Your task to perform on an android device: open app "Flipkart Online Shopping App" (install if not already installed) and go to login screen Image 0: 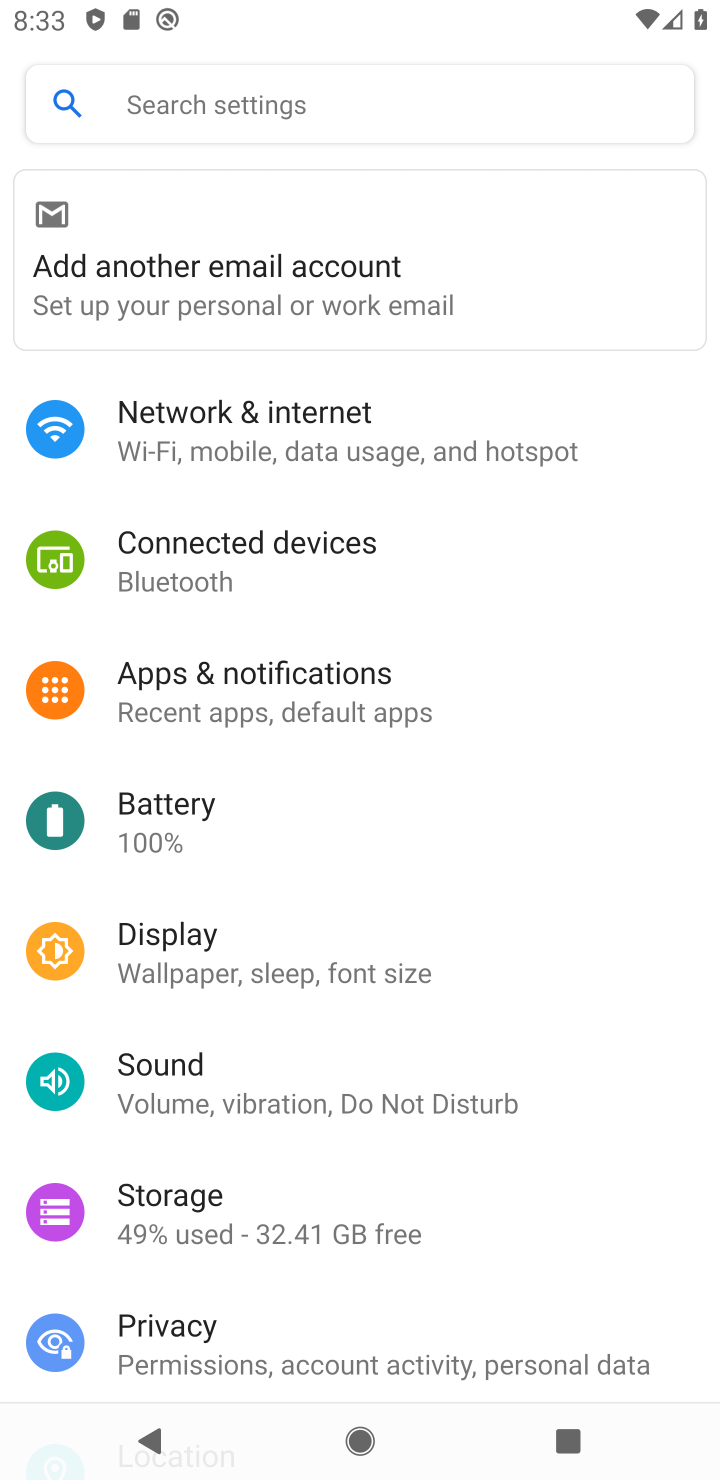
Step 0: press back button
Your task to perform on an android device: open app "Flipkart Online Shopping App" (install if not already installed) and go to login screen Image 1: 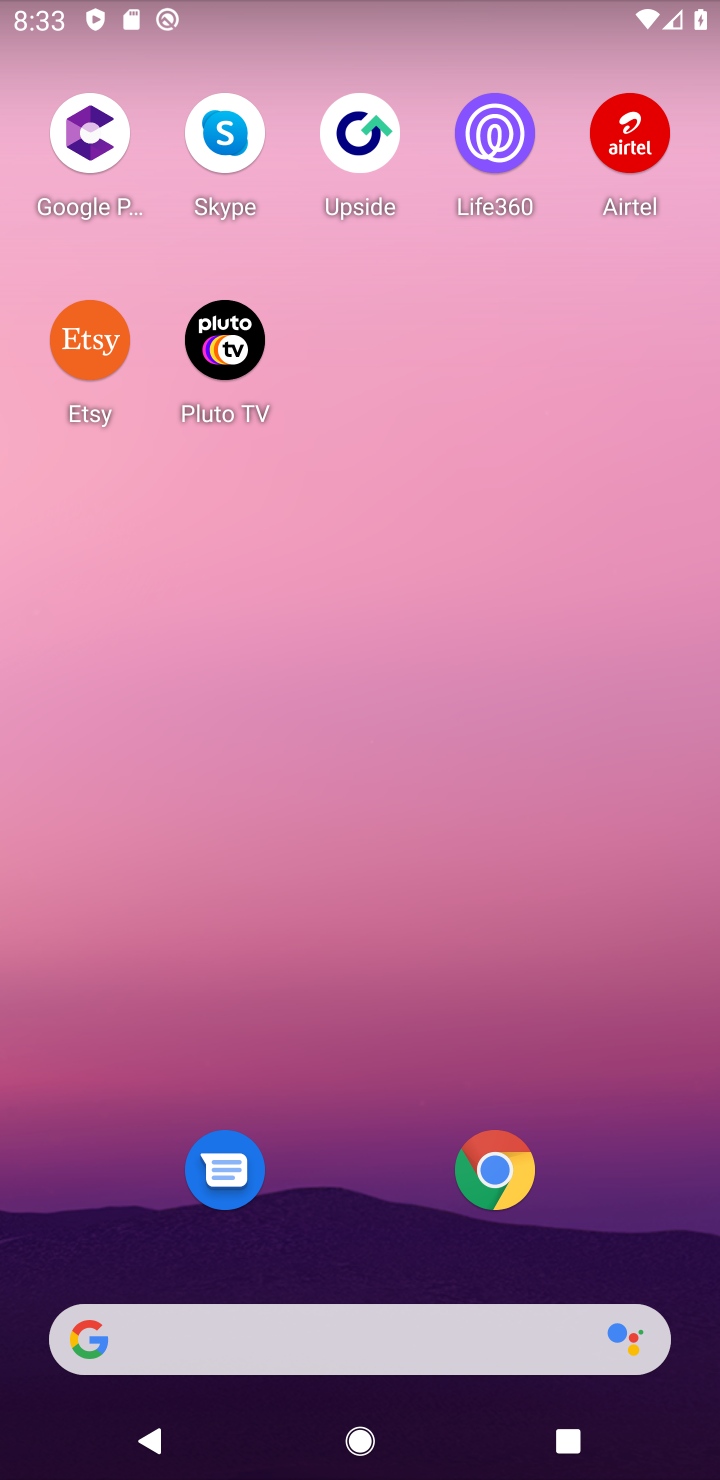
Step 1: drag from (391, 945) to (596, 180)
Your task to perform on an android device: open app "Flipkart Online Shopping App" (install if not already installed) and go to login screen Image 2: 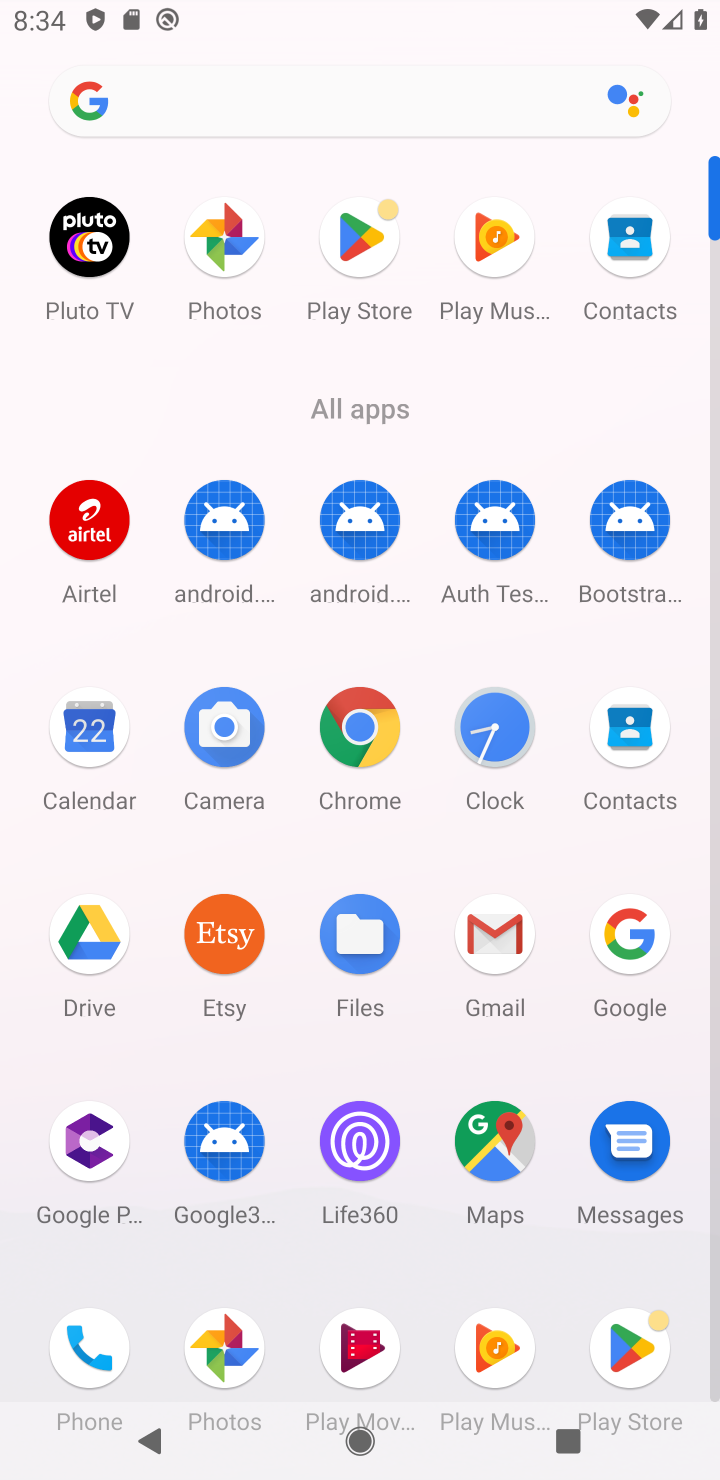
Step 2: click (367, 241)
Your task to perform on an android device: open app "Flipkart Online Shopping App" (install if not already installed) and go to login screen Image 3: 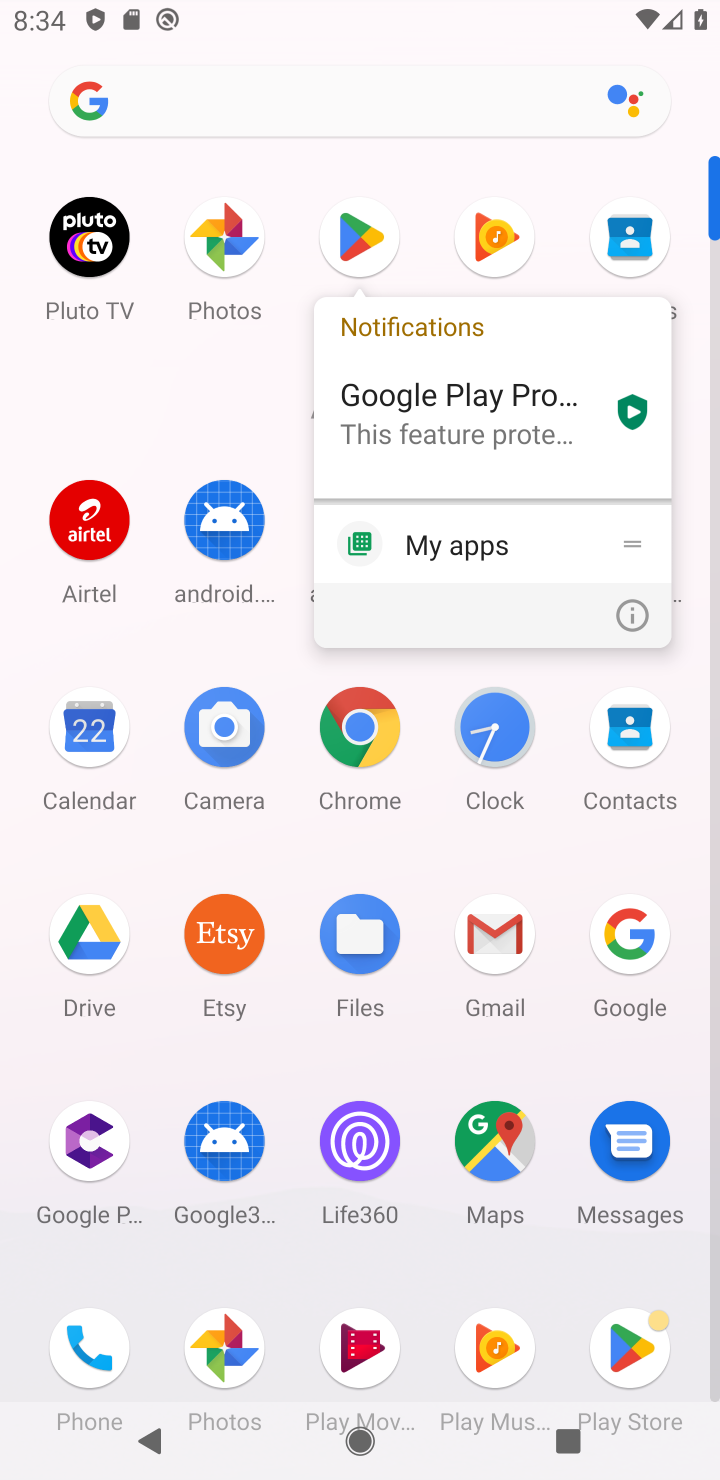
Step 3: click (363, 230)
Your task to perform on an android device: open app "Flipkart Online Shopping App" (install if not already installed) and go to login screen Image 4: 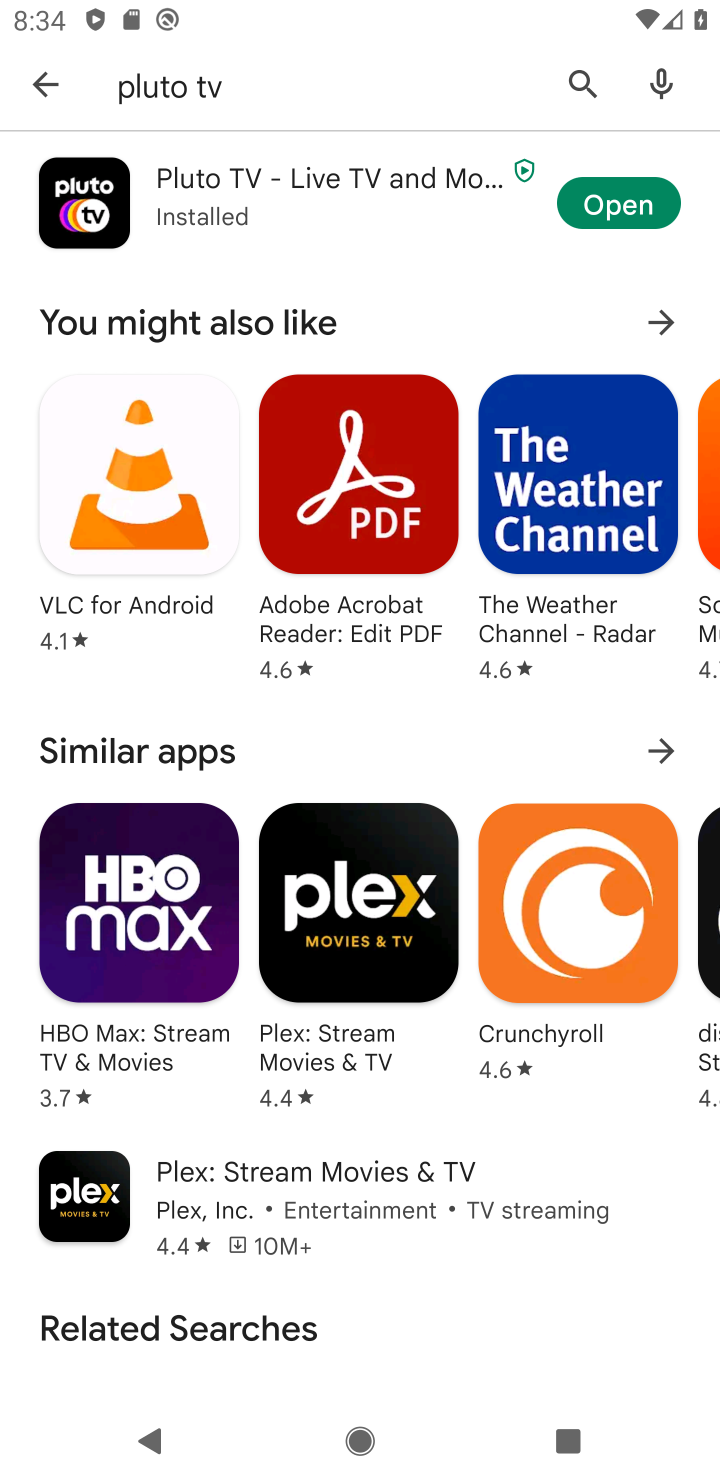
Step 4: click (361, 237)
Your task to perform on an android device: open app "Flipkart Online Shopping App" (install if not already installed) and go to login screen Image 5: 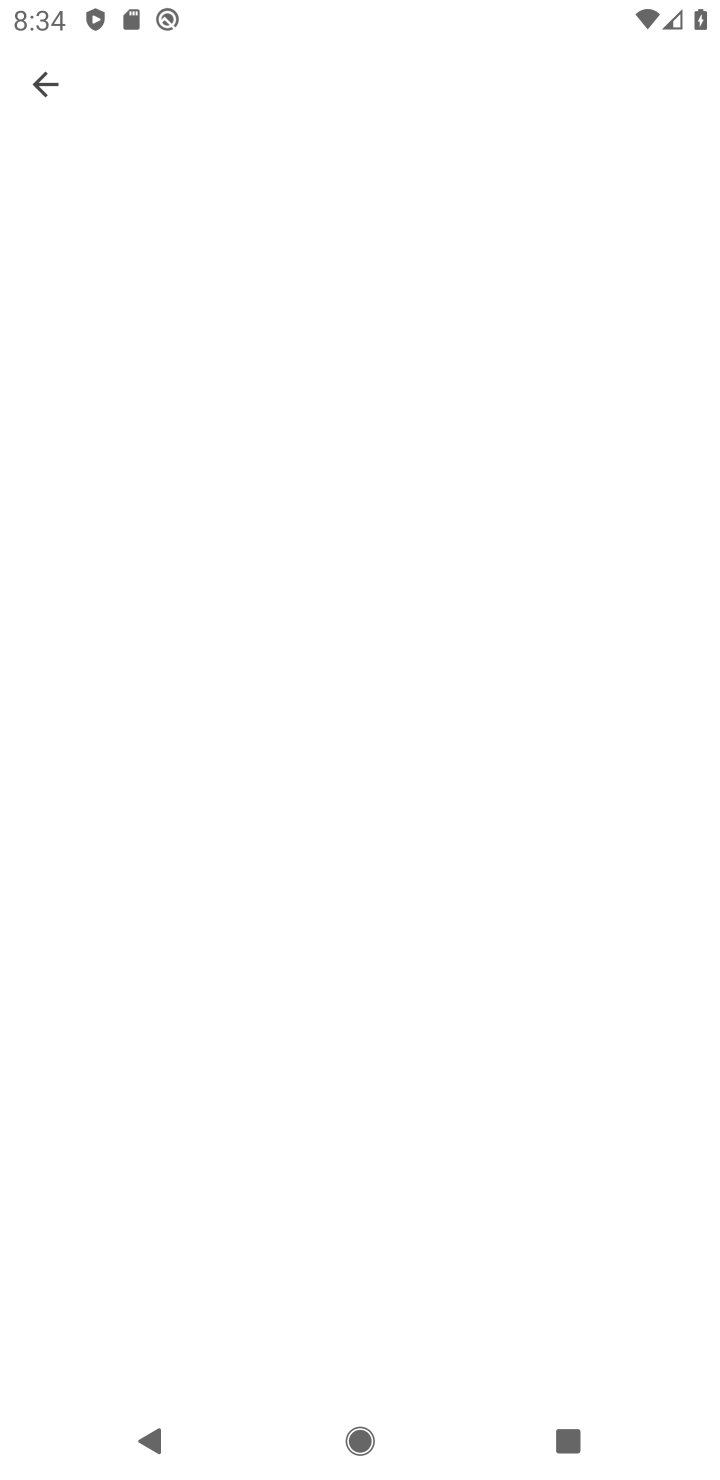
Step 5: click (575, 100)
Your task to perform on an android device: open app "Flipkart Online Shopping App" (install if not already installed) and go to login screen Image 6: 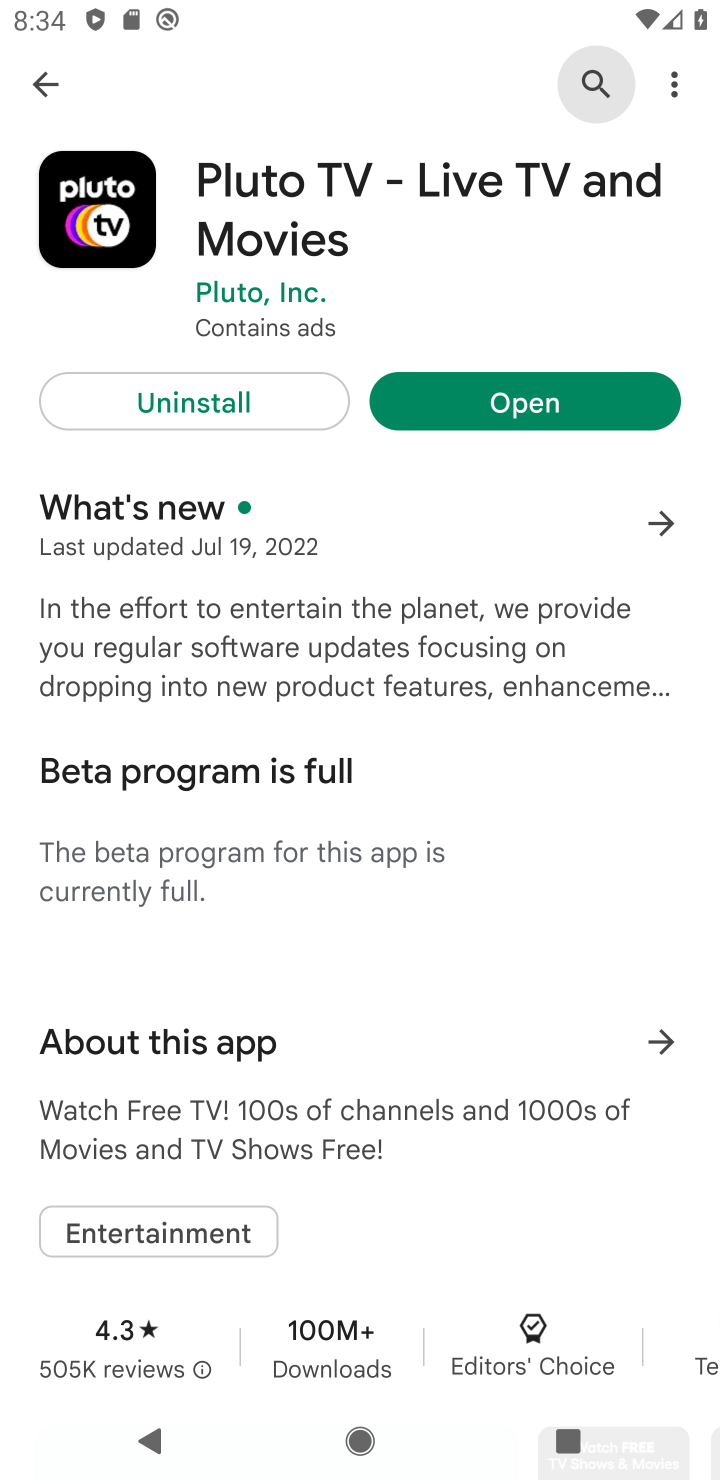
Step 6: click (601, 90)
Your task to perform on an android device: open app "Flipkart Online Shopping App" (install if not already installed) and go to login screen Image 7: 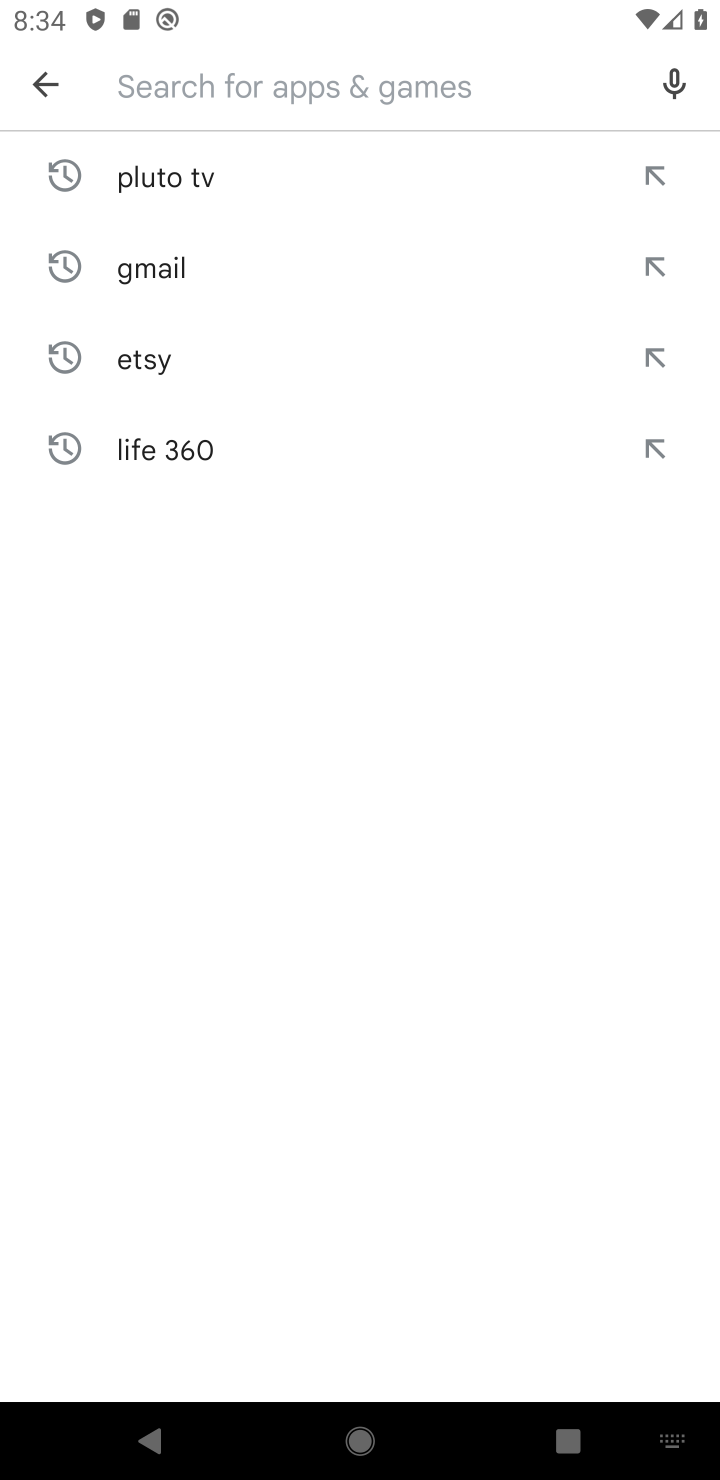
Step 7: click (180, 91)
Your task to perform on an android device: open app "Flipkart Online Shopping App" (install if not already installed) and go to login screen Image 8: 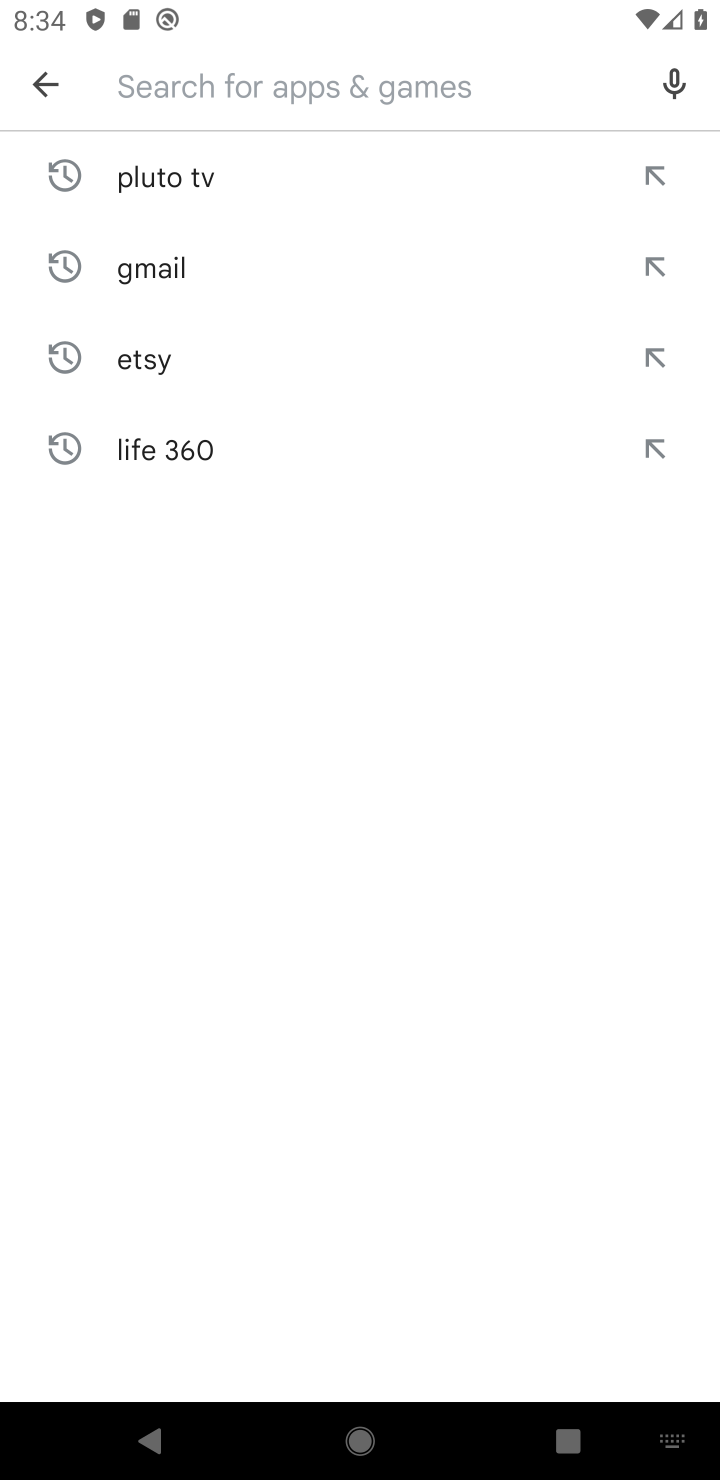
Step 8: type "Flipkart Online Shopping App"
Your task to perform on an android device: open app "Flipkart Online Shopping App" (install if not already installed) and go to login screen Image 9: 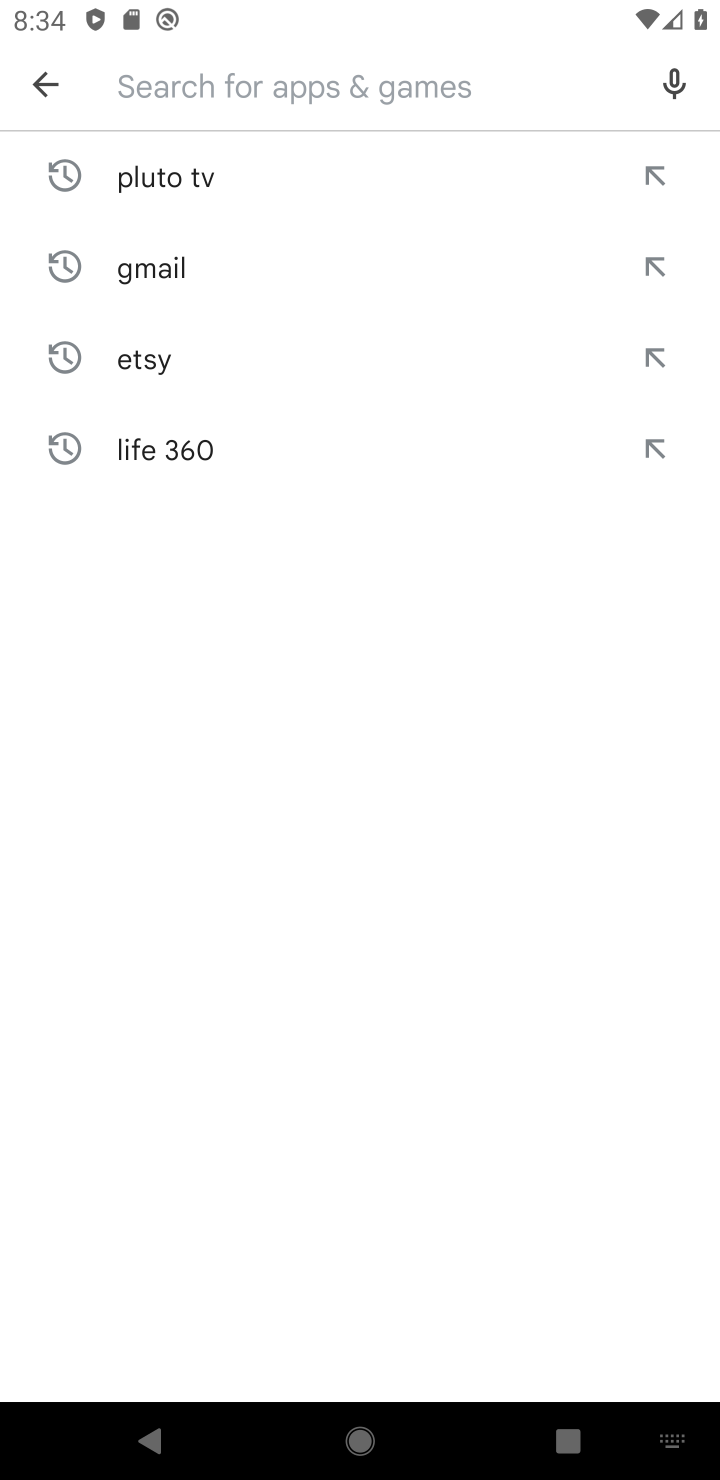
Step 9: click (445, 874)
Your task to perform on an android device: open app "Flipkart Online Shopping App" (install if not already installed) and go to login screen Image 10: 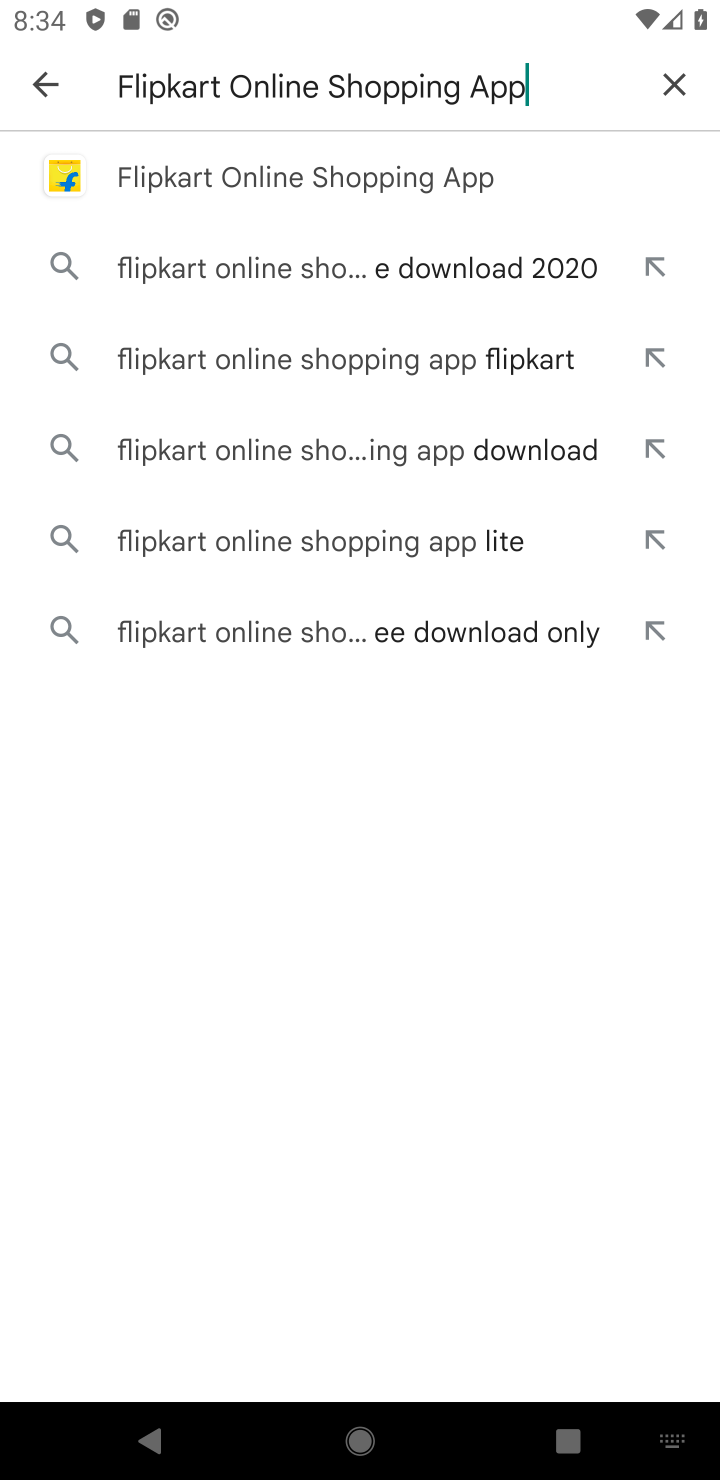
Step 10: click (232, 172)
Your task to perform on an android device: open app "Flipkart Online Shopping App" (install if not already installed) and go to login screen Image 11: 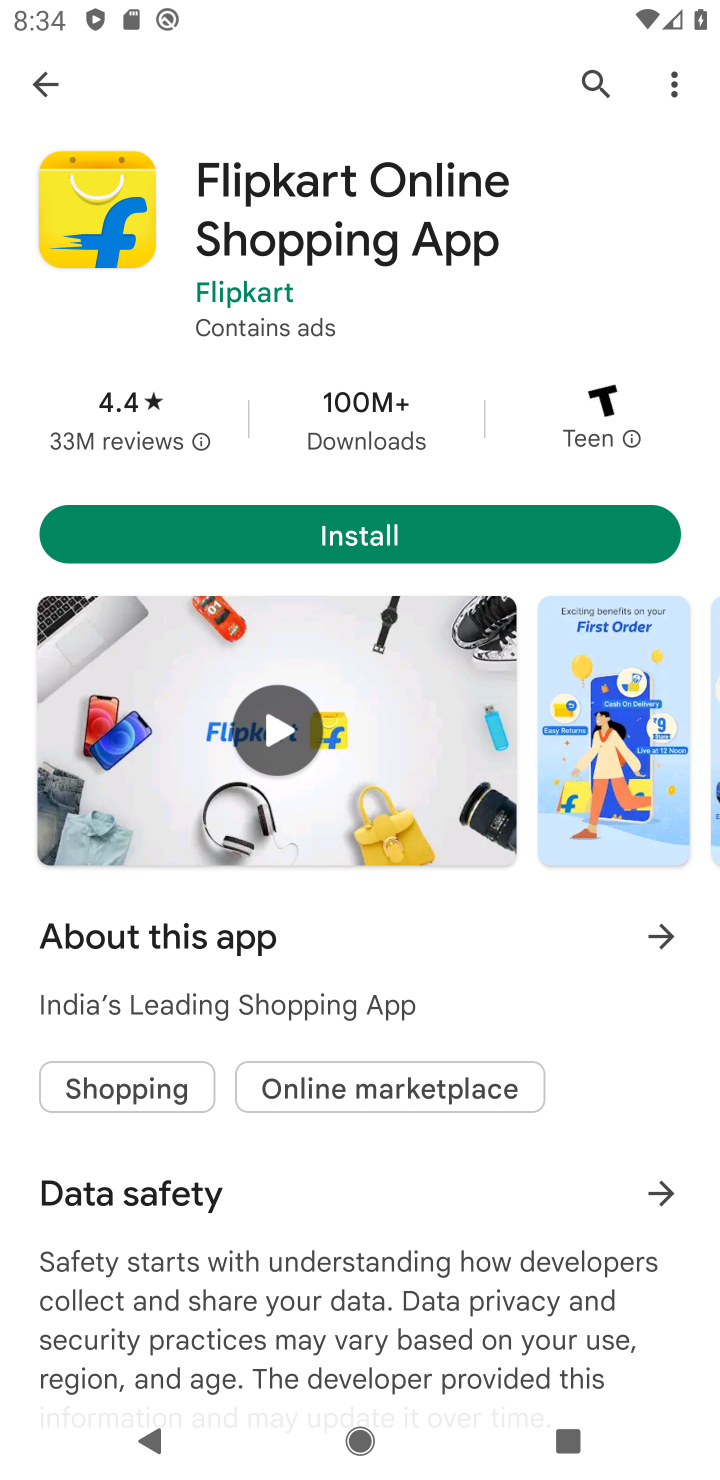
Step 11: click (318, 546)
Your task to perform on an android device: open app "Flipkart Online Shopping App" (install if not already installed) and go to login screen Image 12: 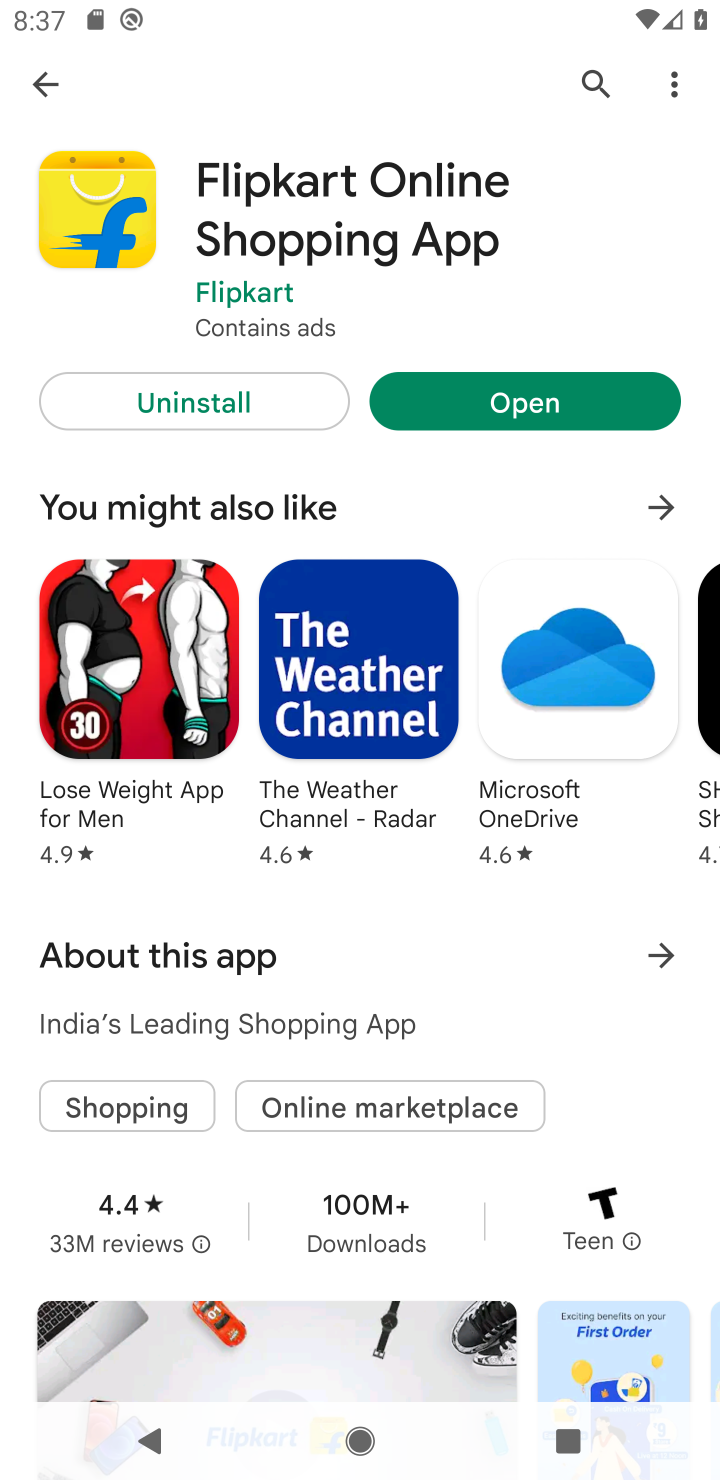
Step 12: click (555, 389)
Your task to perform on an android device: open app "Flipkart Online Shopping App" (install if not already installed) and go to login screen Image 13: 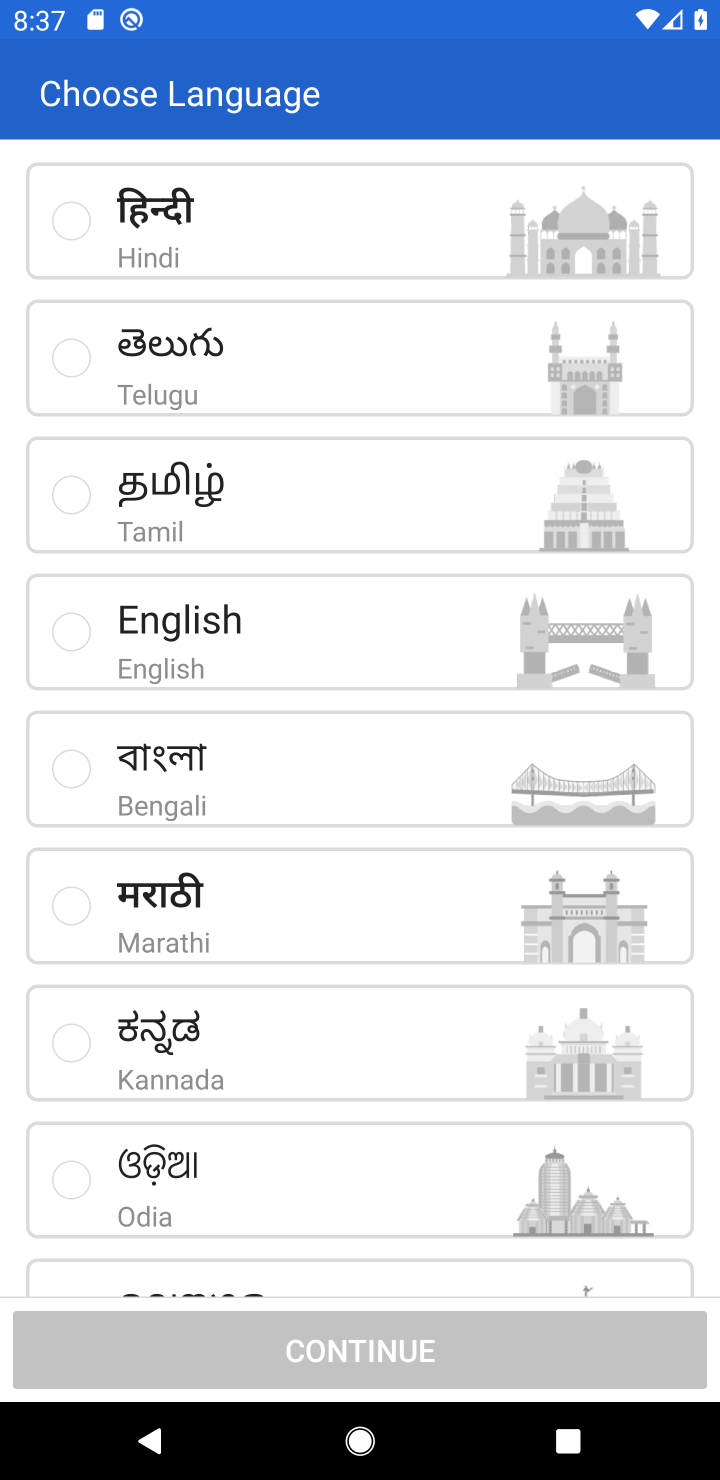
Step 13: click (70, 613)
Your task to perform on an android device: open app "Flipkart Online Shopping App" (install if not already installed) and go to login screen Image 14: 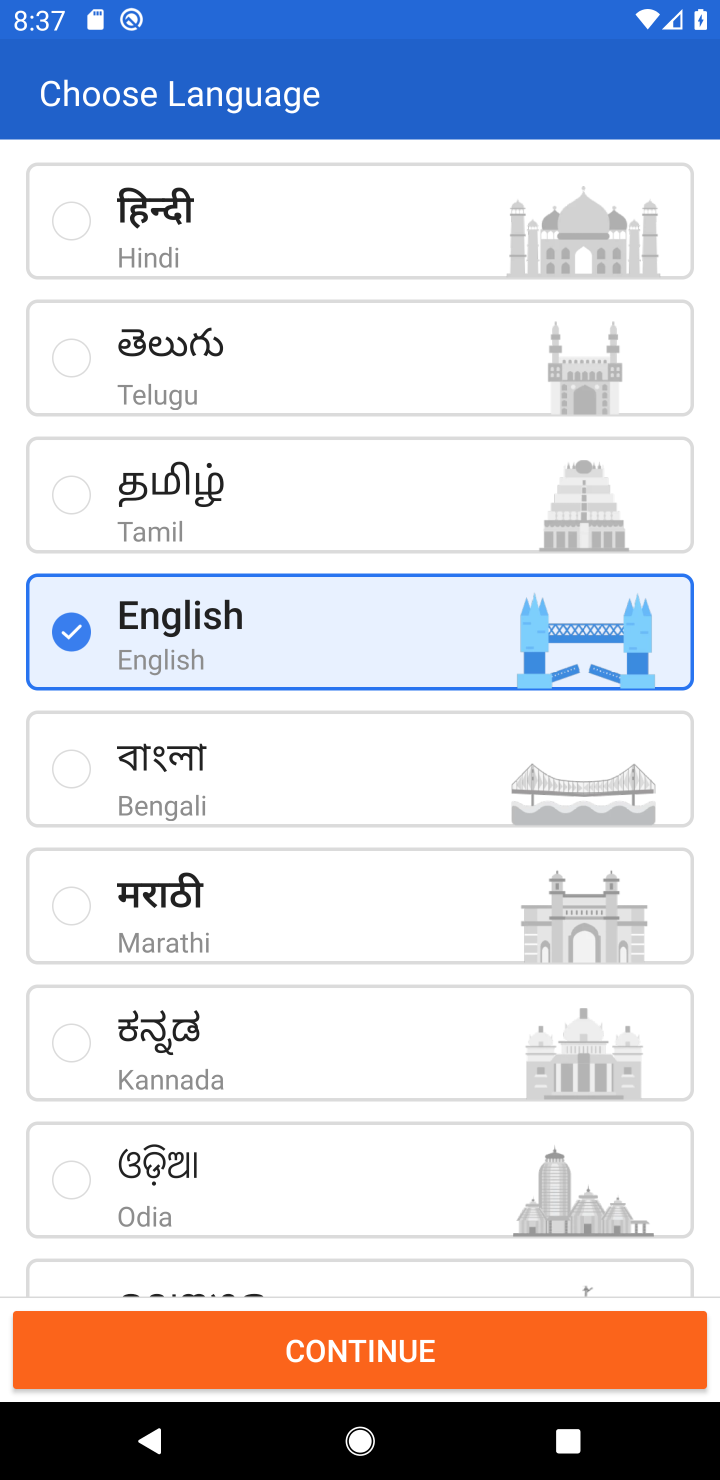
Step 14: click (326, 1360)
Your task to perform on an android device: open app "Flipkart Online Shopping App" (install if not already installed) and go to login screen Image 15: 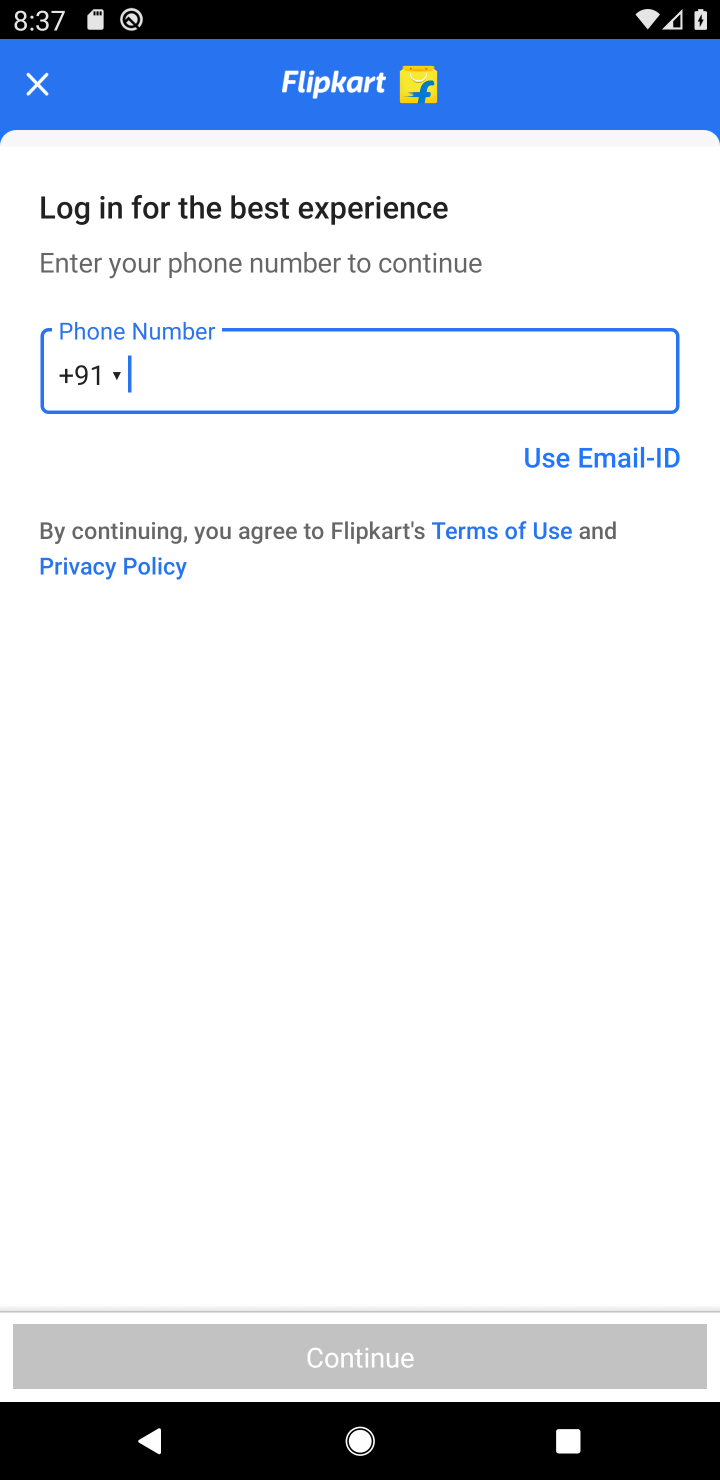
Step 15: task complete